Your task to perform on an android device: turn notification dots on Image 0: 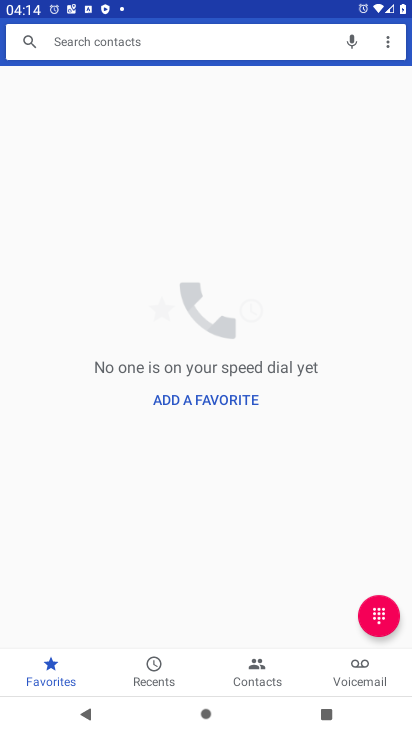
Step 0: press home button
Your task to perform on an android device: turn notification dots on Image 1: 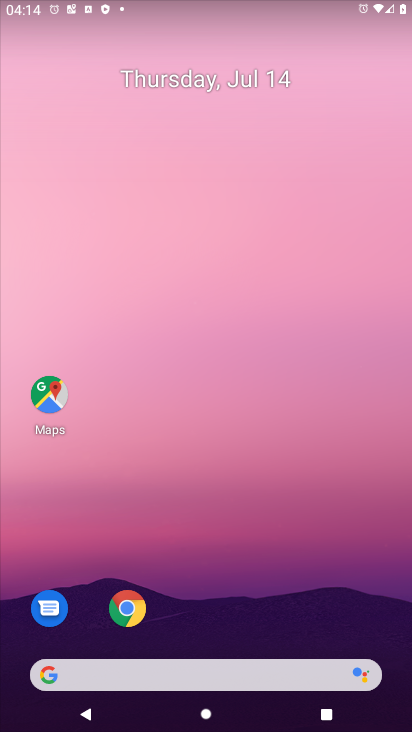
Step 1: drag from (385, 615) to (340, 178)
Your task to perform on an android device: turn notification dots on Image 2: 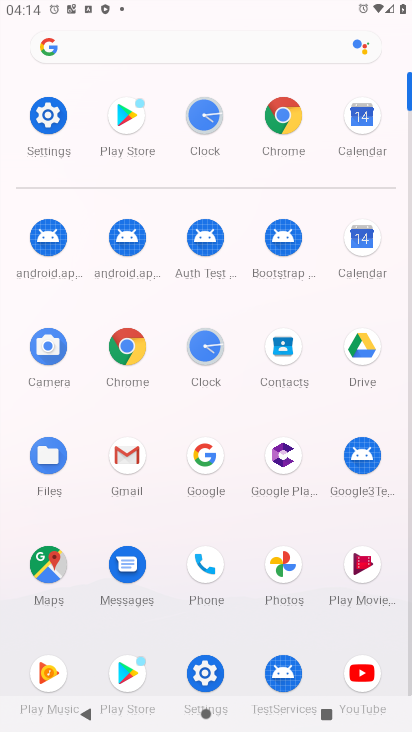
Step 2: click (201, 671)
Your task to perform on an android device: turn notification dots on Image 3: 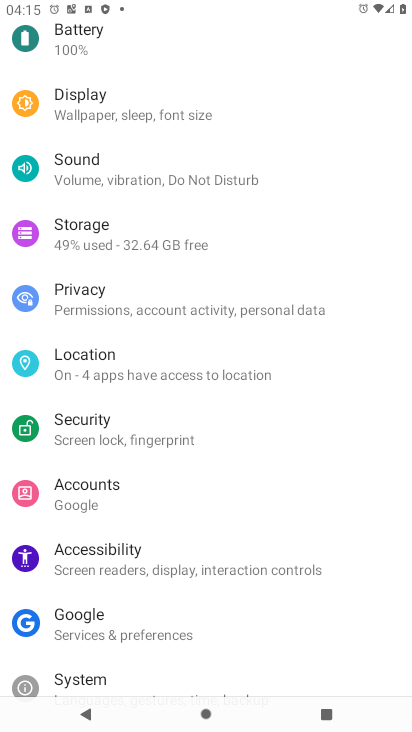
Step 3: drag from (326, 195) to (328, 475)
Your task to perform on an android device: turn notification dots on Image 4: 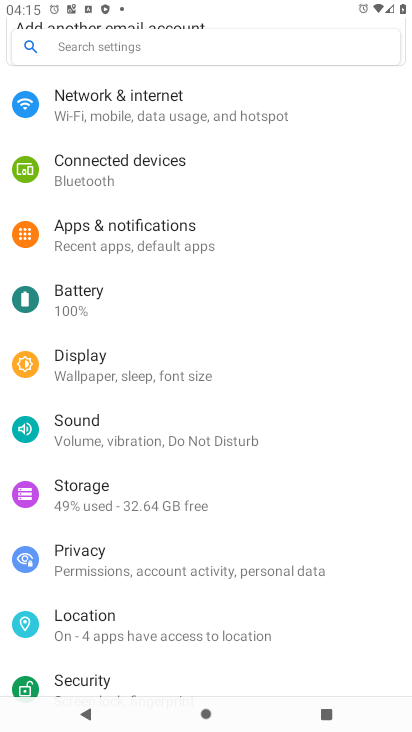
Step 4: click (99, 223)
Your task to perform on an android device: turn notification dots on Image 5: 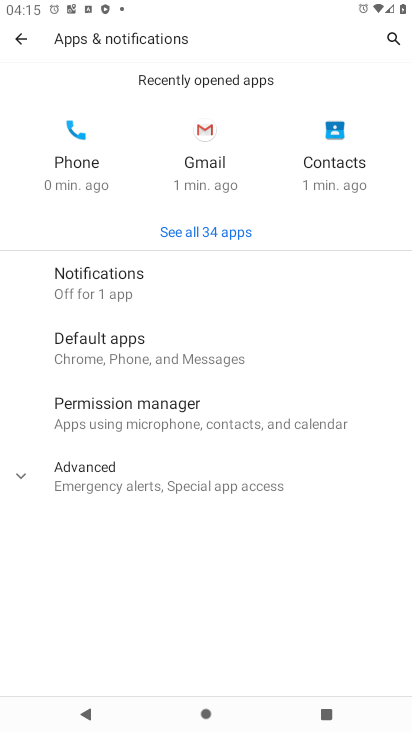
Step 5: click (99, 271)
Your task to perform on an android device: turn notification dots on Image 6: 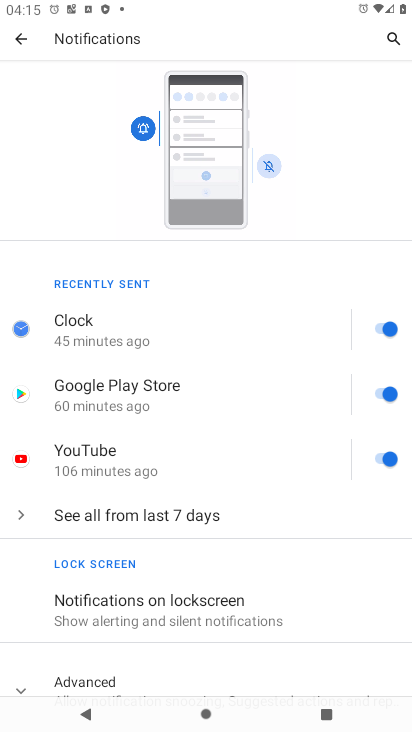
Step 6: drag from (244, 621) to (249, 364)
Your task to perform on an android device: turn notification dots on Image 7: 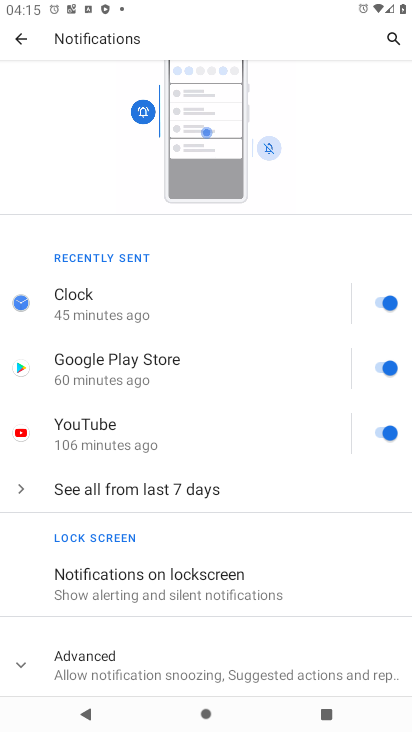
Step 7: click (25, 660)
Your task to perform on an android device: turn notification dots on Image 8: 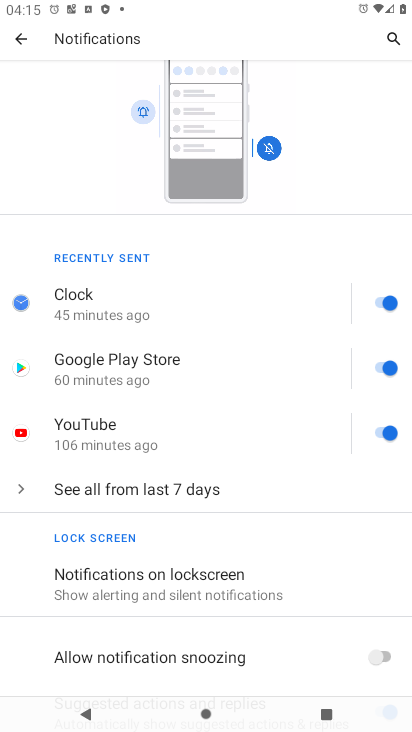
Step 8: task complete